Your task to perform on an android device: Go to notification settings Image 0: 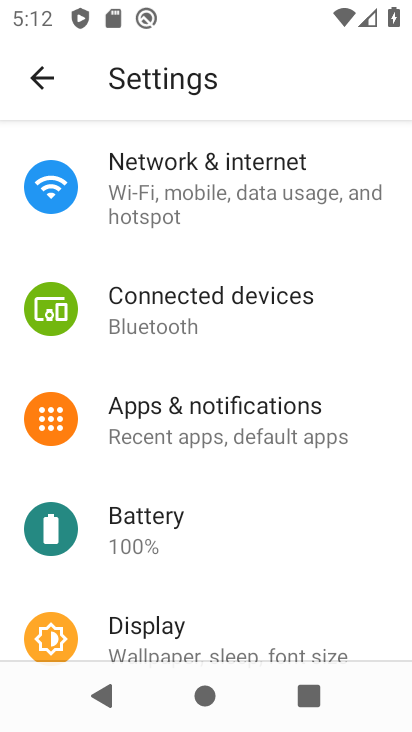
Step 0: click (275, 413)
Your task to perform on an android device: Go to notification settings Image 1: 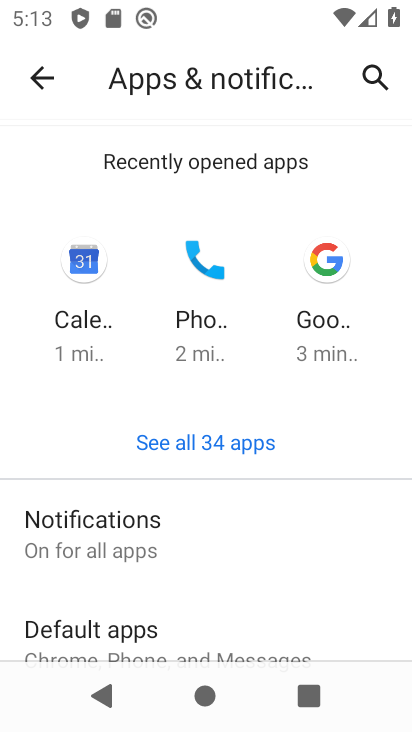
Step 1: click (179, 535)
Your task to perform on an android device: Go to notification settings Image 2: 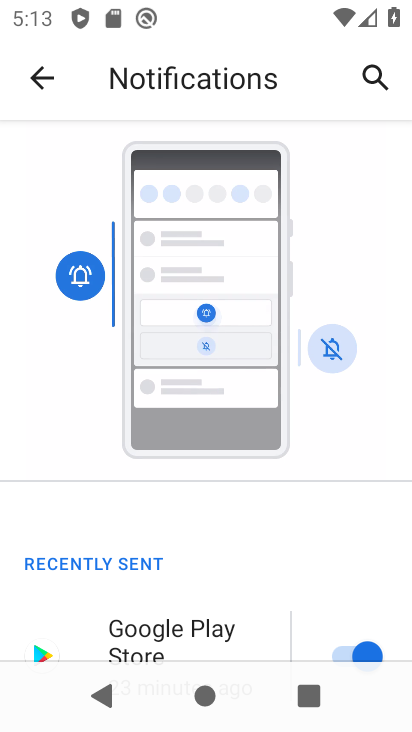
Step 2: task complete